Your task to perform on an android device: Clear the cart on newegg. Add apple airpods to the cart on newegg Image 0: 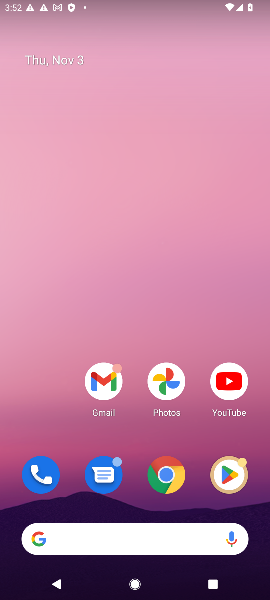
Step 0: click (108, 541)
Your task to perform on an android device: Clear the cart on newegg. Add apple airpods to the cart on newegg Image 1: 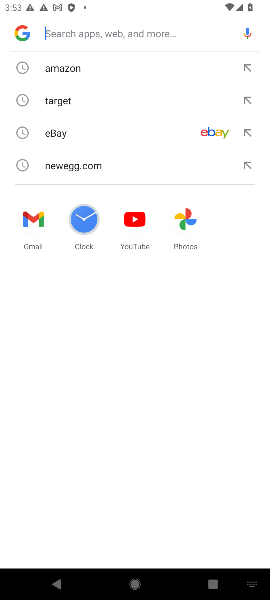
Step 1: click (116, 172)
Your task to perform on an android device: Clear the cart on newegg. Add apple airpods to the cart on newegg Image 2: 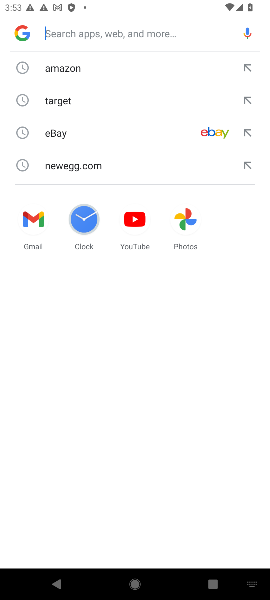
Step 2: click (96, 166)
Your task to perform on an android device: Clear the cart on newegg. Add apple airpods to the cart on newegg Image 3: 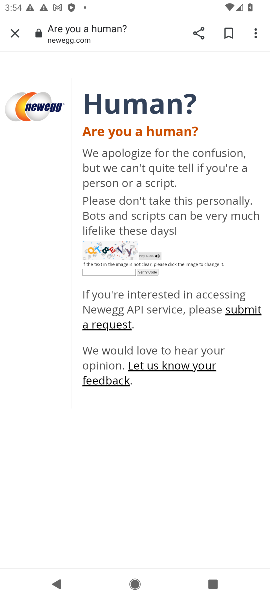
Step 3: task complete